Your task to perform on an android device: View the shopping cart on costco. Image 0: 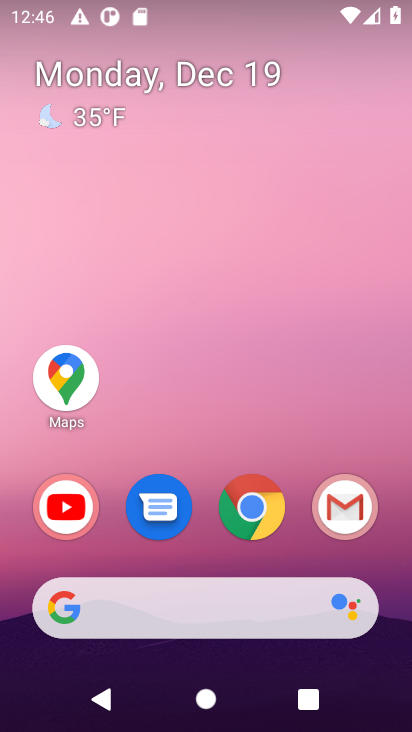
Step 0: click (248, 512)
Your task to perform on an android device: View the shopping cart on costco. Image 1: 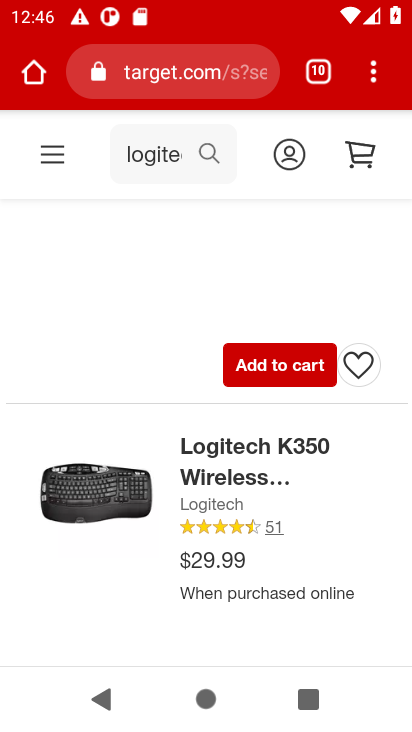
Step 1: click (203, 78)
Your task to perform on an android device: View the shopping cart on costco. Image 2: 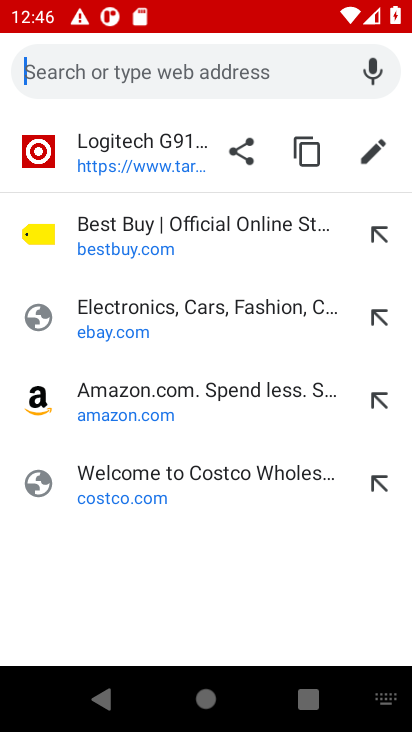
Step 2: click (93, 488)
Your task to perform on an android device: View the shopping cart on costco. Image 3: 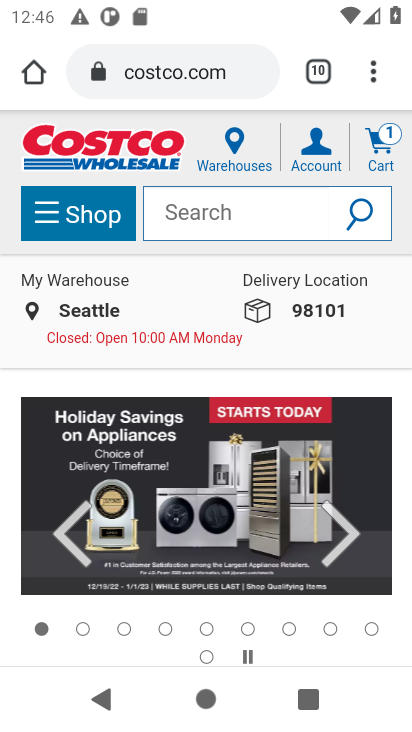
Step 3: click (377, 153)
Your task to perform on an android device: View the shopping cart on costco. Image 4: 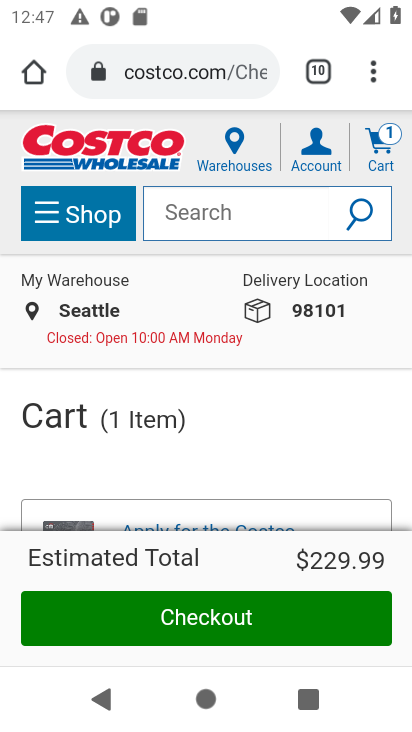
Step 4: task complete